Your task to perform on an android device: Open calendar and show me the fourth week of next month Image 0: 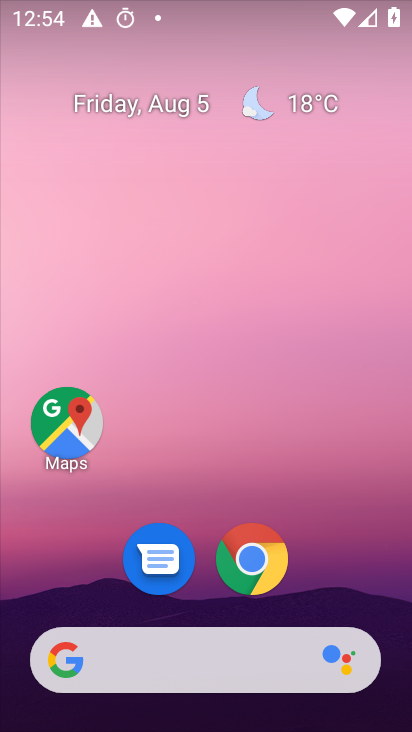
Step 0: drag from (73, 545) to (342, 165)
Your task to perform on an android device: Open calendar and show me the fourth week of next month Image 1: 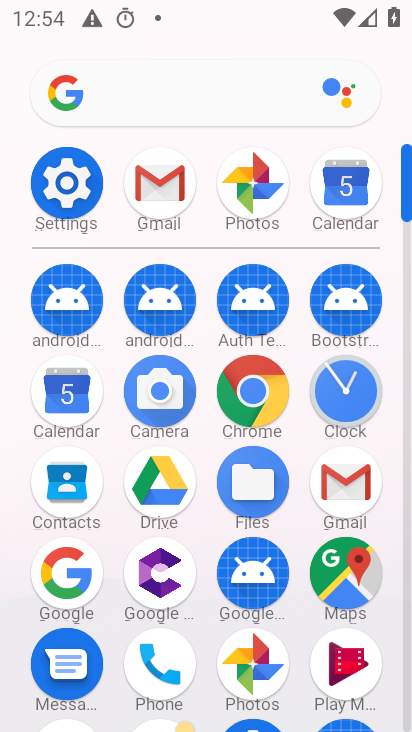
Step 1: click (340, 197)
Your task to perform on an android device: Open calendar and show me the fourth week of next month Image 2: 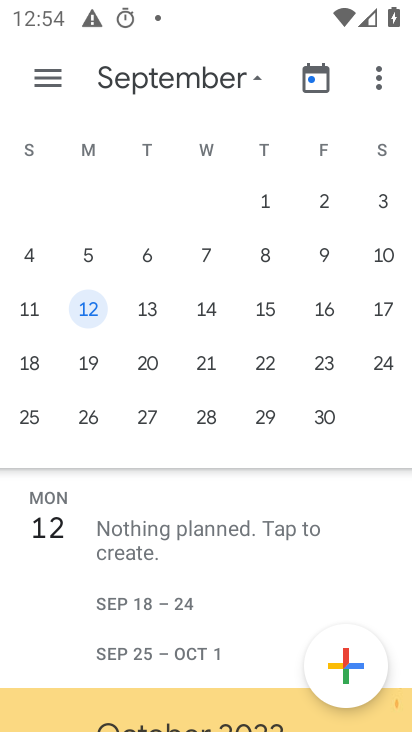
Step 2: click (103, 352)
Your task to perform on an android device: Open calendar and show me the fourth week of next month Image 3: 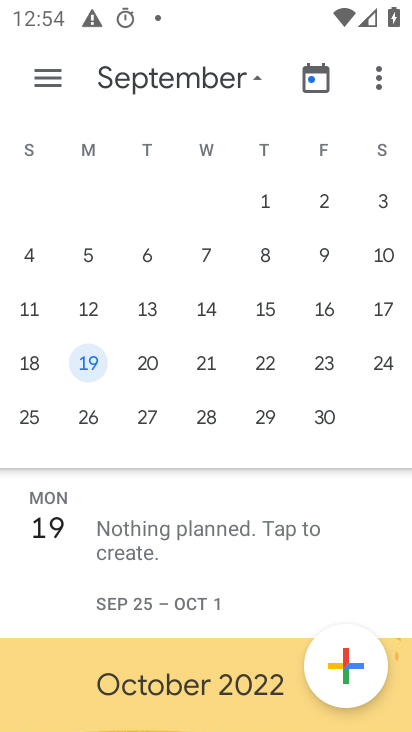
Step 3: task complete